Your task to perform on an android device: turn on bluetooth scan Image 0: 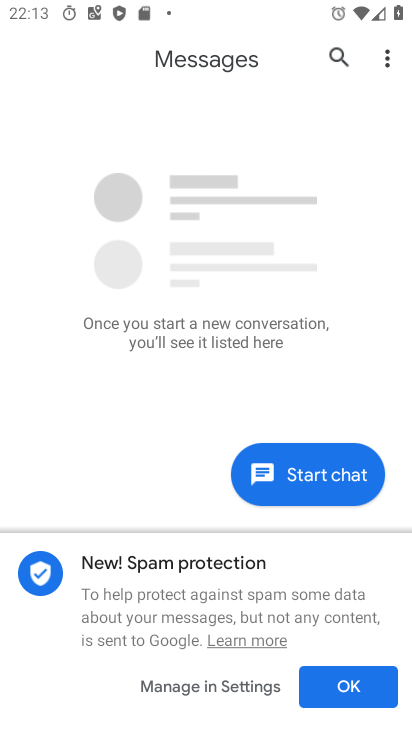
Step 0: press home button
Your task to perform on an android device: turn on bluetooth scan Image 1: 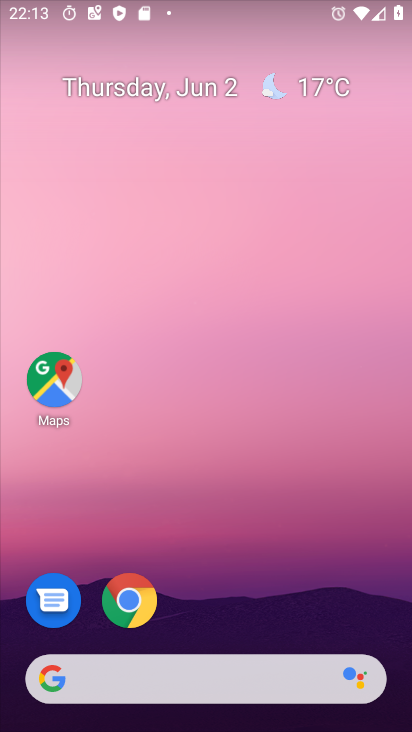
Step 1: drag from (360, 612) to (360, 238)
Your task to perform on an android device: turn on bluetooth scan Image 2: 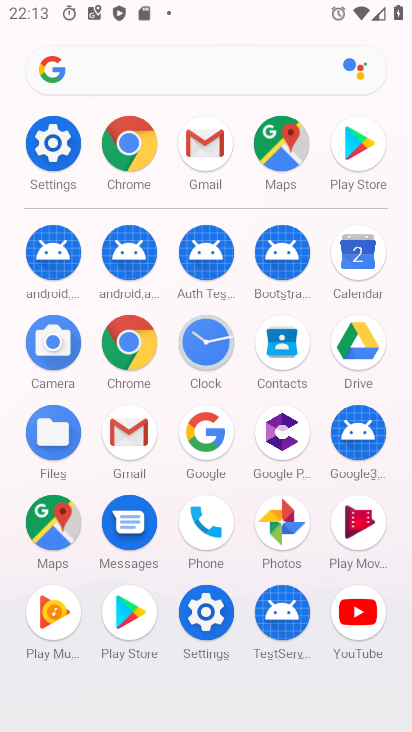
Step 2: click (204, 617)
Your task to perform on an android device: turn on bluetooth scan Image 3: 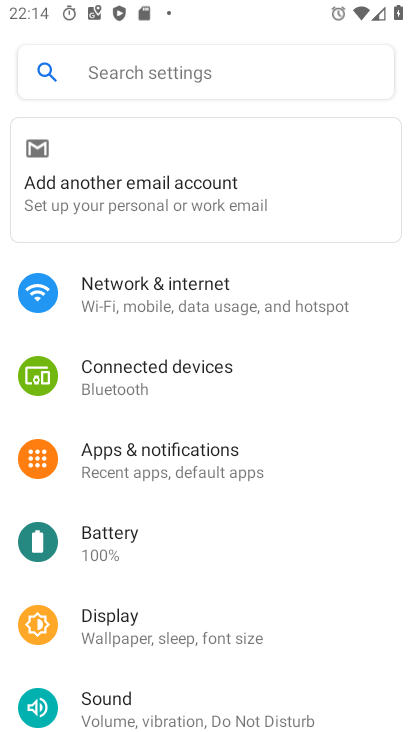
Step 3: drag from (343, 564) to (351, 444)
Your task to perform on an android device: turn on bluetooth scan Image 4: 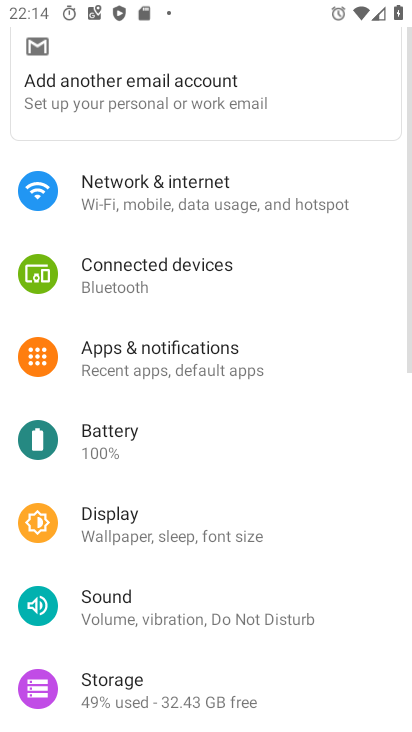
Step 4: drag from (355, 555) to (361, 409)
Your task to perform on an android device: turn on bluetooth scan Image 5: 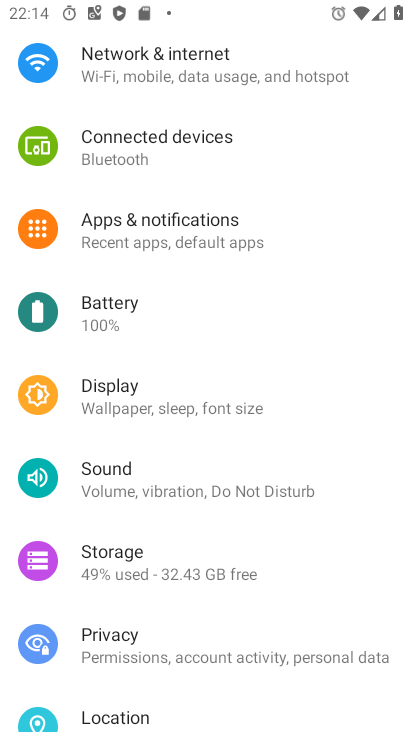
Step 5: drag from (357, 556) to (366, 432)
Your task to perform on an android device: turn on bluetooth scan Image 6: 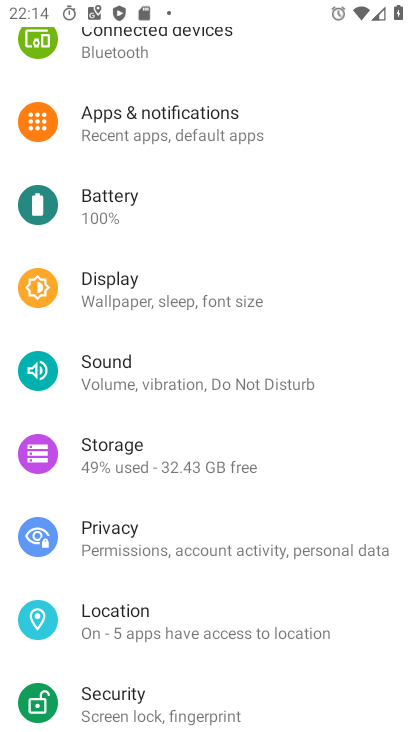
Step 6: drag from (353, 590) to (364, 398)
Your task to perform on an android device: turn on bluetooth scan Image 7: 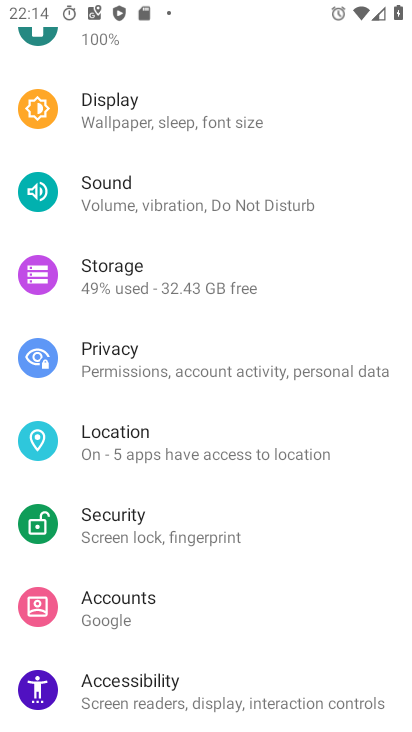
Step 7: drag from (359, 534) to (382, 199)
Your task to perform on an android device: turn on bluetooth scan Image 8: 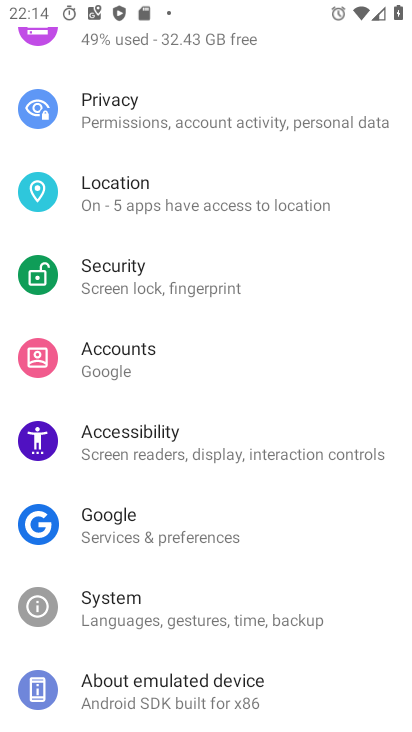
Step 8: click (311, 208)
Your task to perform on an android device: turn on bluetooth scan Image 9: 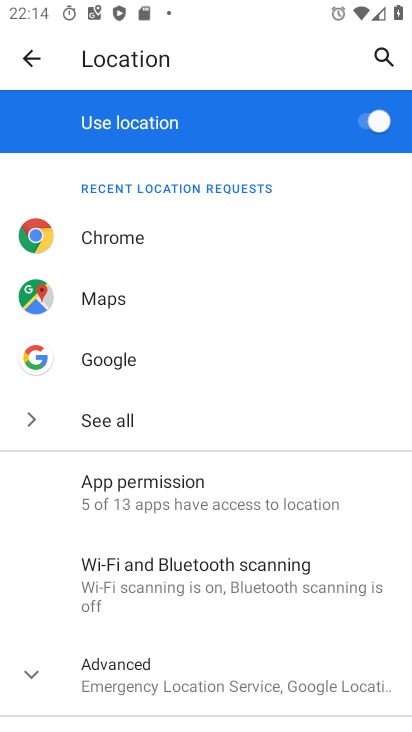
Step 9: drag from (322, 523) to (321, 304)
Your task to perform on an android device: turn on bluetooth scan Image 10: 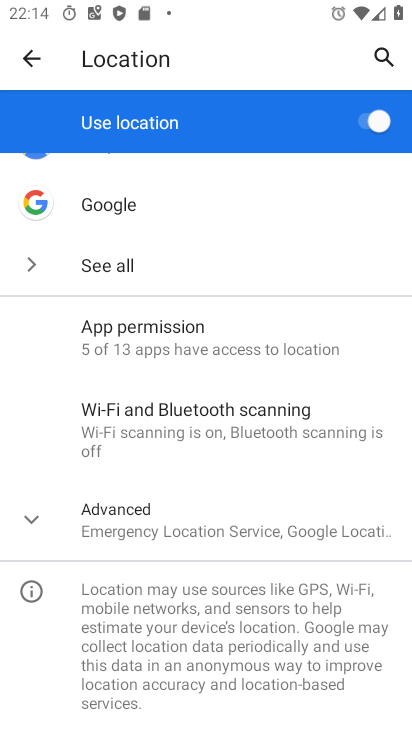
Step 10: click (299, 518)
Your task to perform on an android device: turn on bluetooth scan Image 11: 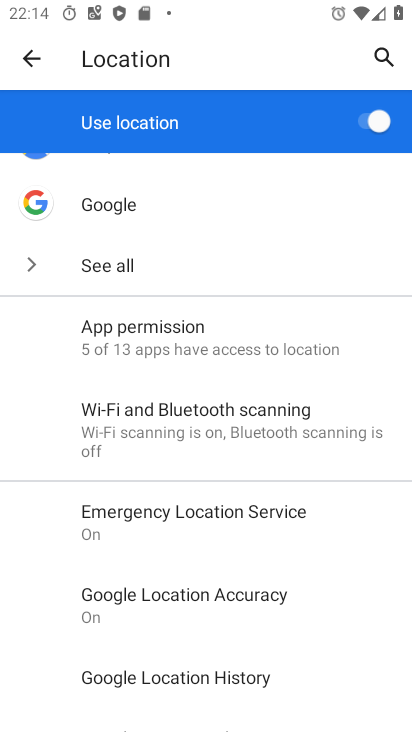
Step 11: drag from (310, 574) to (320, 443)
Your task to perform on an android device: turn on bluetooth scan Image 12: 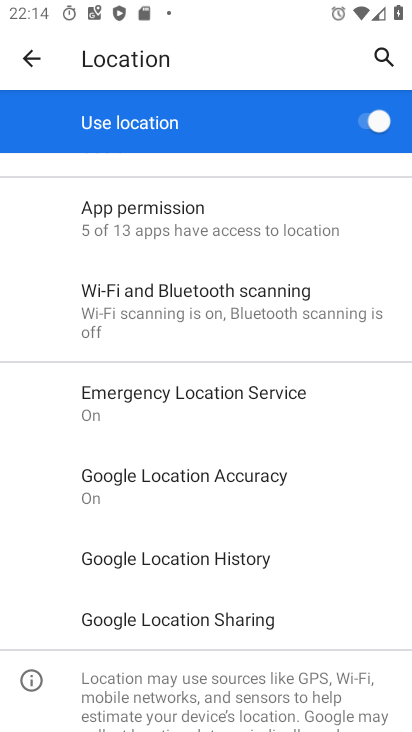
Step 12: click (301, 293)
Your task to perform on an android device: turn on bluetooth scan Image 13: 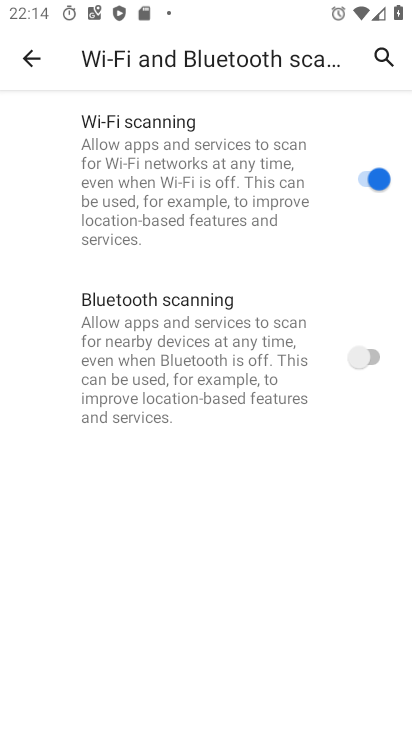
Step 13: click (361, 360)
Your task to perform on an android device: turn on bluetooth scan Image 14: 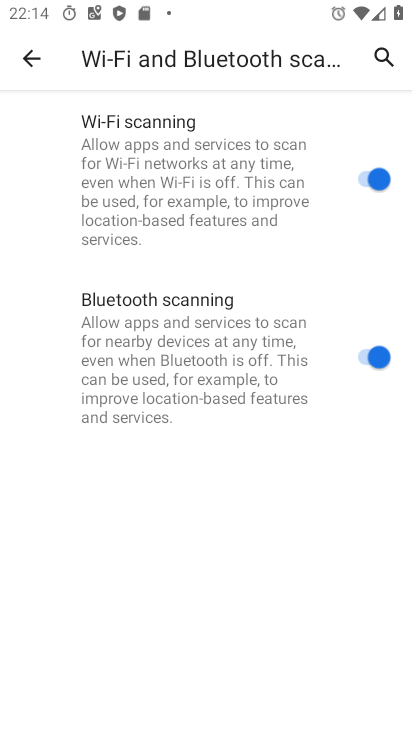
Step 14: task complete